Your task to perform on an android device: empty trash in google photos Image 0: 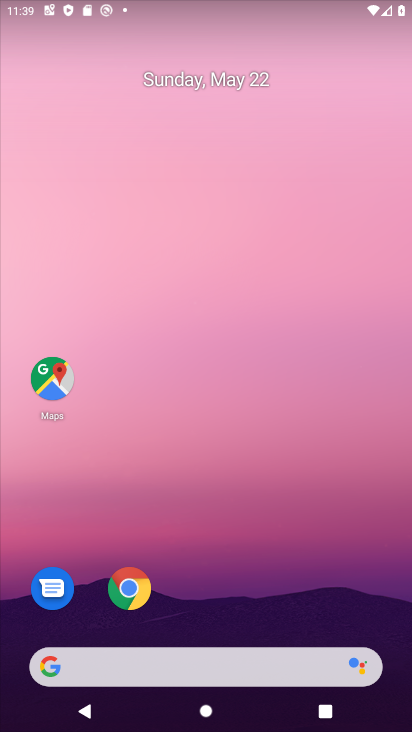
Step 0: drag from (258, 686) to (277, 112)
Your task to perform on an android device: empty trash in google photos Image 1: 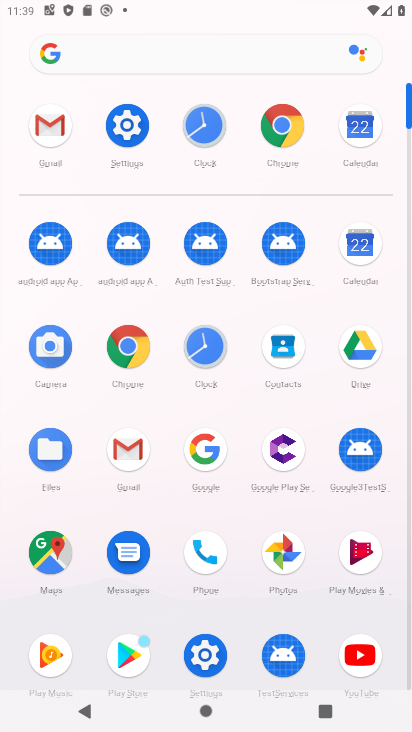
Step 1: click (287, 558)
Your task to perform on an android device: empty trash in google photos Image 2: 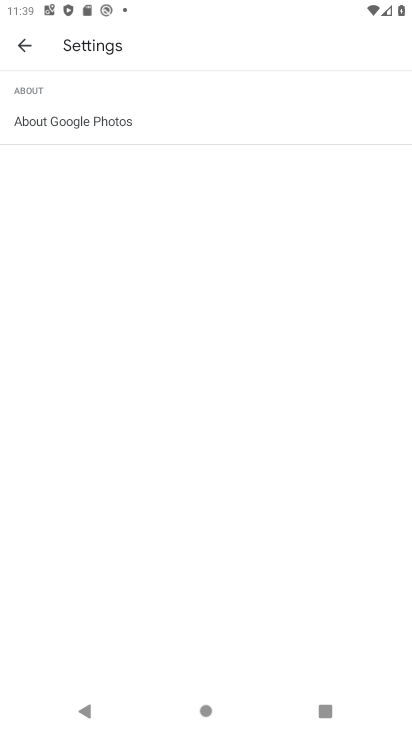
Step 2: click (32, 53)
Your task to perform on an android device: empty trash in google photos Image 3: 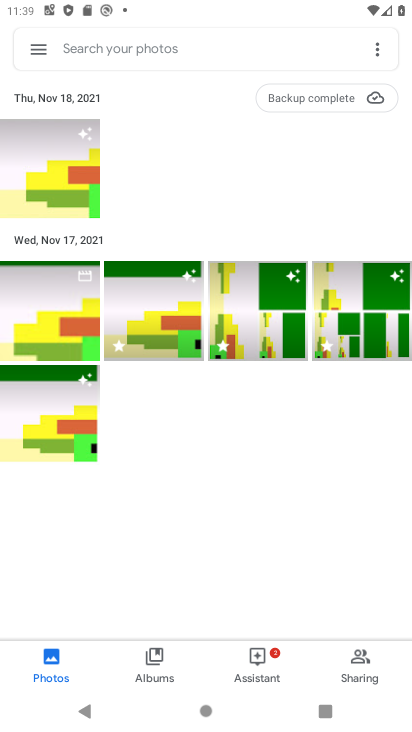
Step 3: click (39, 57)
Your task to perform on an android device: empty trash in google photos Image 4: 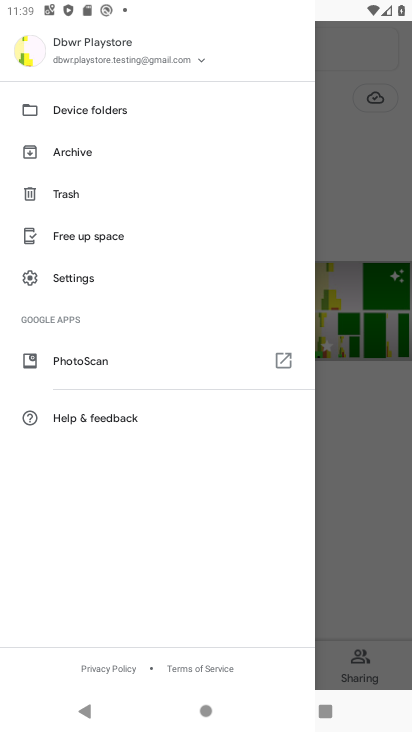
Step 4: click (93, 193)
Your task to perform on an android device: empty trash in google photos Image 5: 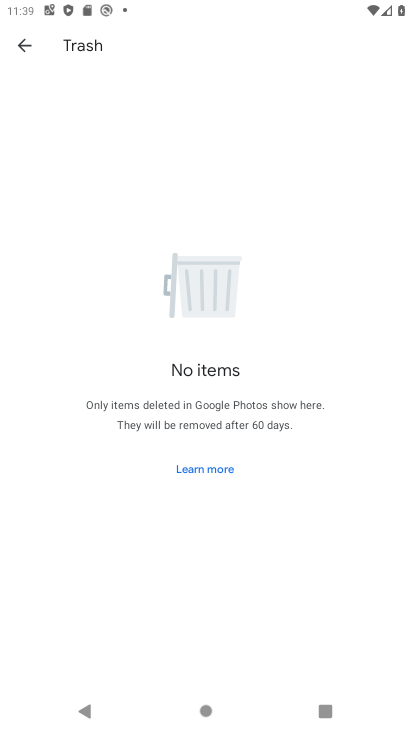
Step 5: task complete